Your task to perform on an android device: open chrome and create a bookmark for the current page Image 0: 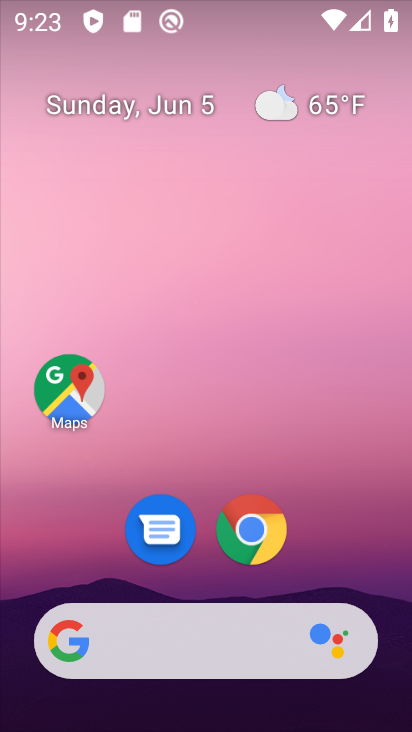
Step 0: click (257, 544)
Your task to perform on an android device: open chrome and create a bookmark for the current page Image 1: 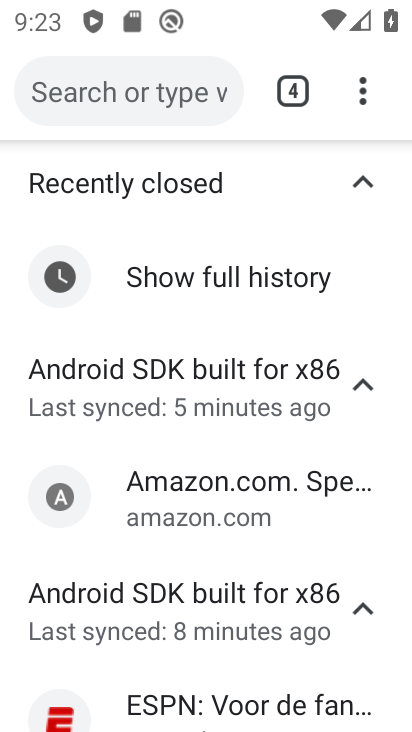
Step 1: click (356, 98)
Your task to perform on an android device: open chrome and create a bookmark for the current page Image 2: 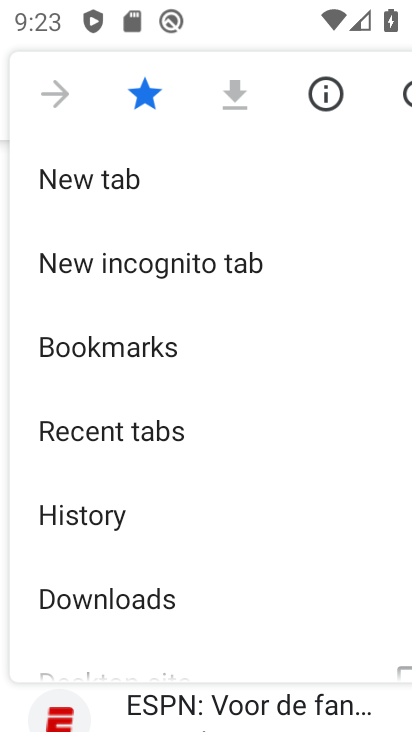
Step 2: task complete